Your task to perform on an android device: open chrome privacy settings Image 0: 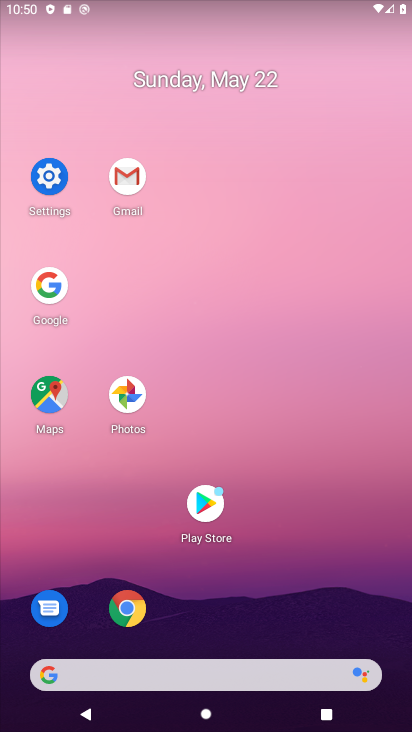
Step 0: click (146, 603)
Your task to perform on an android device: open chrome privacy settings Image 1: 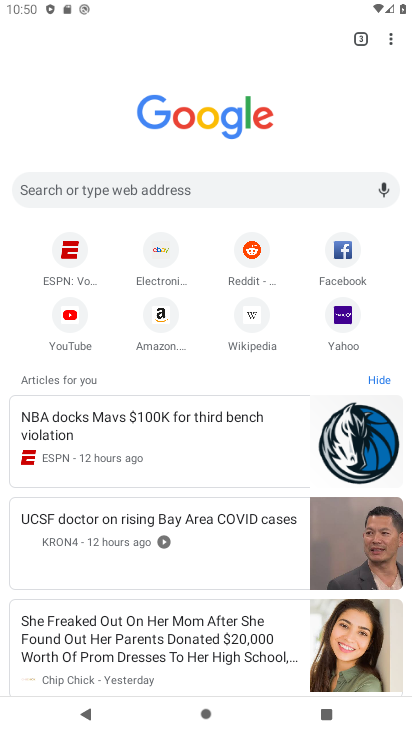
Step 1: click (397, 43)
Your task to perform on an android device: open chrome privacy settings Image 2: 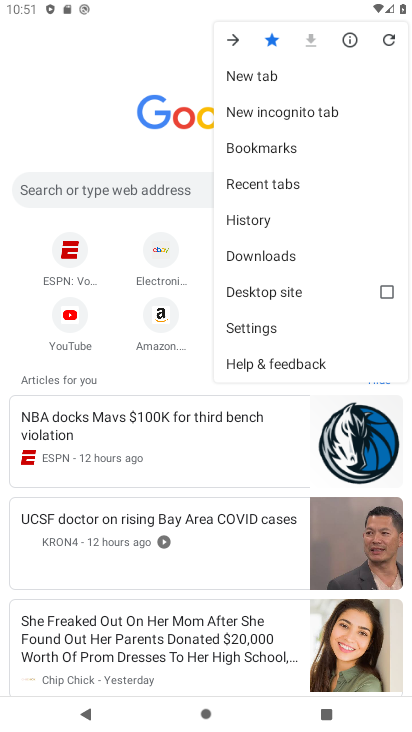
Step 2: click (257, 327)
Your task to perform on an android device: open chrome privacy settings Image 3: 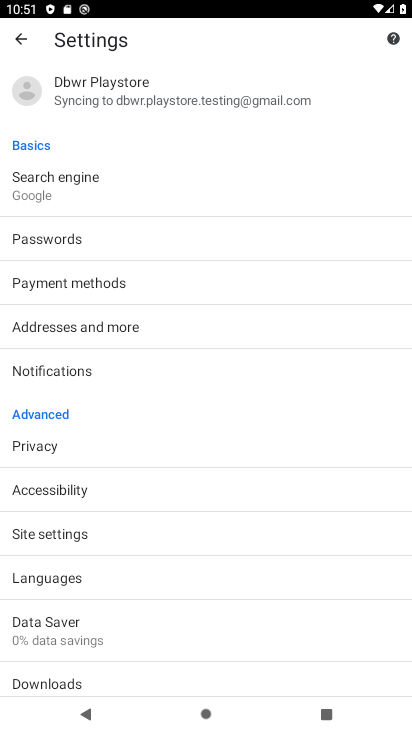
Step 3: click (148, 432)
Your task to perform on an android device: open chrome privacy settings Image 4: 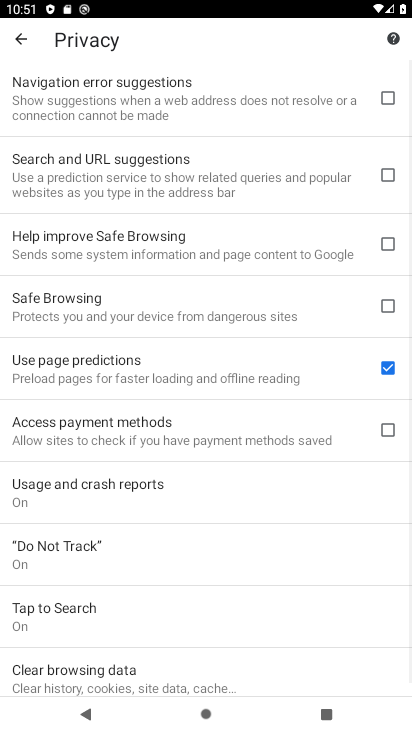
Step 4: task complete